Your task to perform on an android device: Open Chrome and go to settings Image 0: 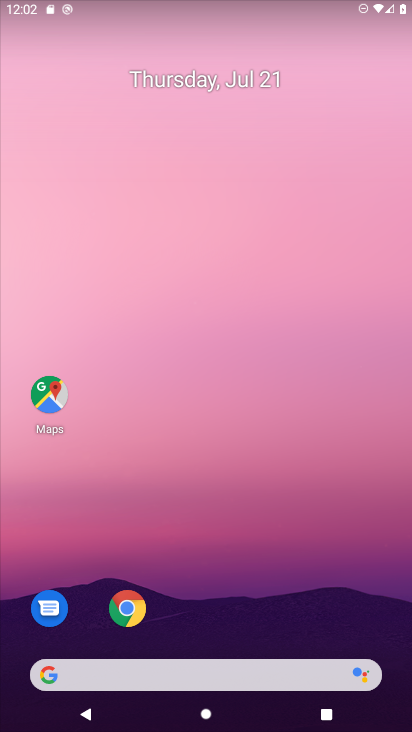
Step 0: click (127, 606)
Your task to perform on an android device: Open Chrome and go to settings Image 1: 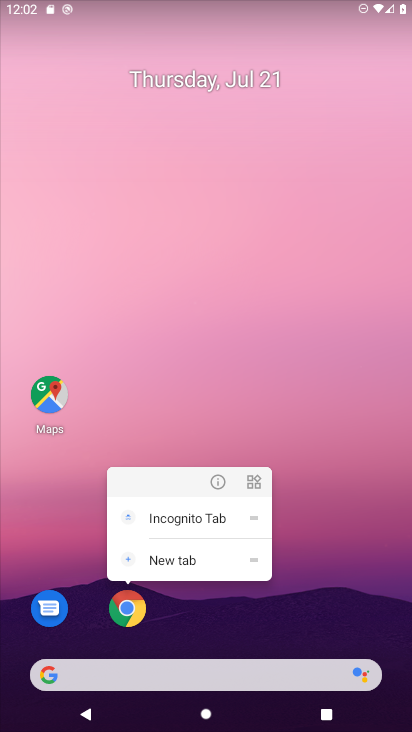
Step 1: click (129, 605)
Your task to perform on an android device: Open Chrome and go to settings Image 2: 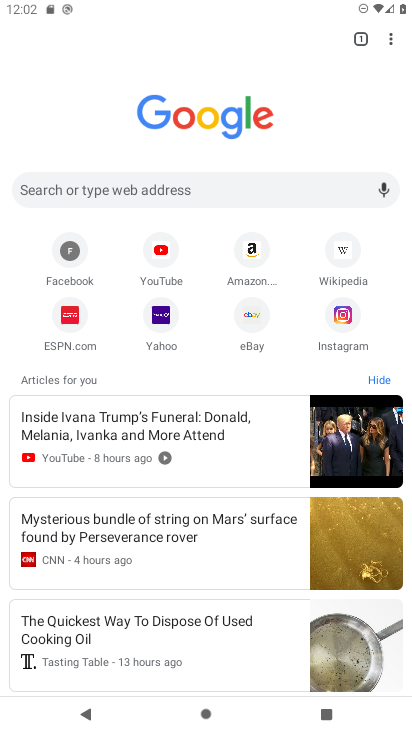
Step 2: task complete